Your task to perform on an android device: allow cookies in the chrome app Image 0: 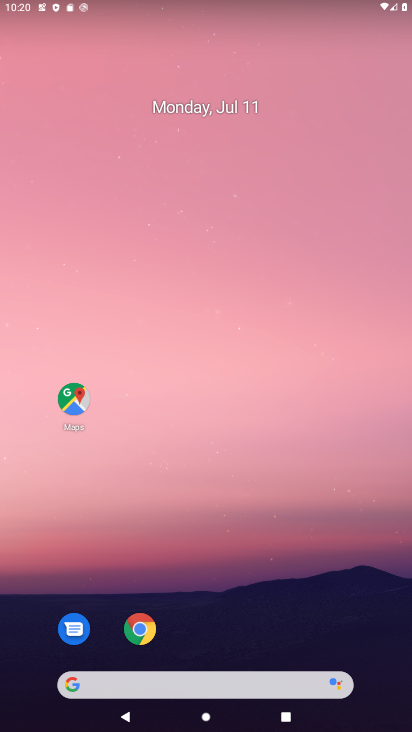
Step 0: click (169, 258)
Your task to perform on an android device: allow cookies in the chrome app Image 1: 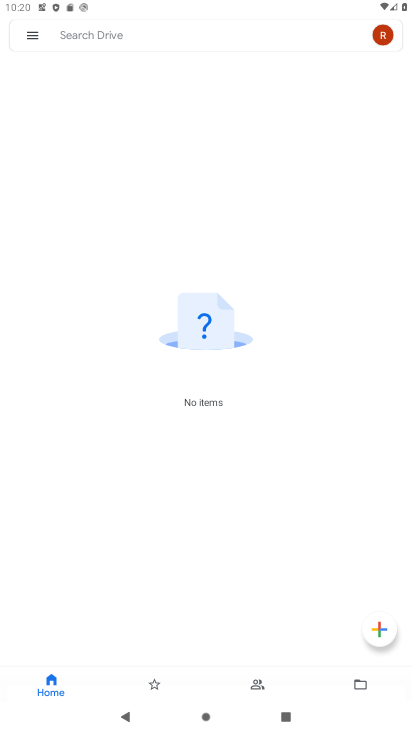
Step 1: press home button
Your task to perform on an android device: allow cookies in the chrome app Image 2: 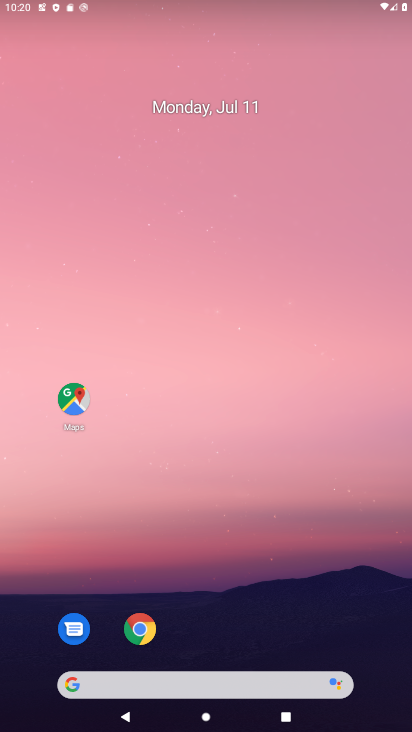
Step 2: click (141, 640)
Your task to perform on an android device: allow cookies in the chrome app Image 3: 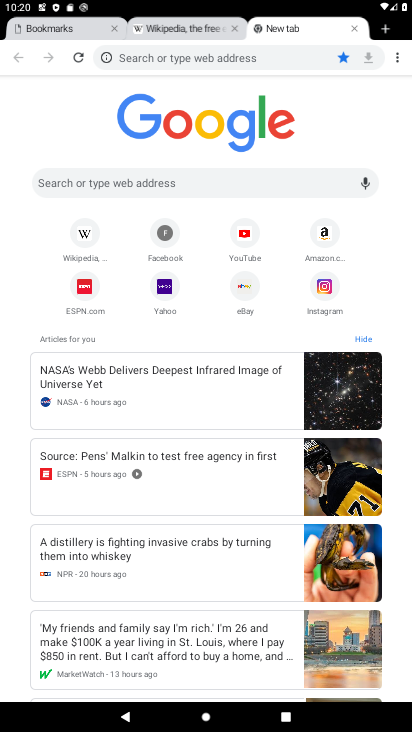
Step 3: click (394, 66)
Your task to perform on an android device: allow cookies in the chrome app Image 4: 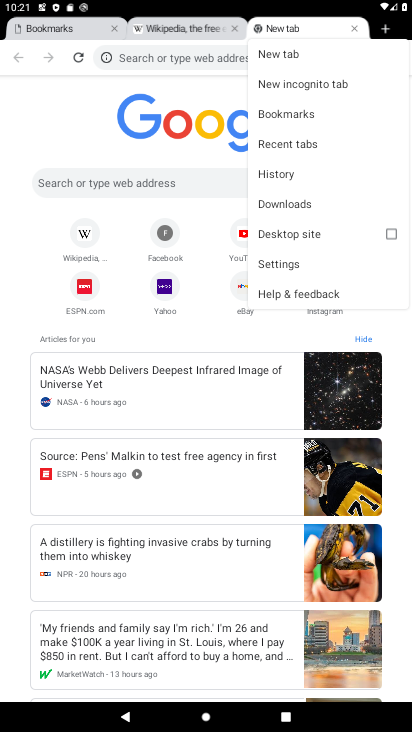
Step 4: click (297, 261)
Your task to perform on an android device: allow cookies in the chrome app Image 5: 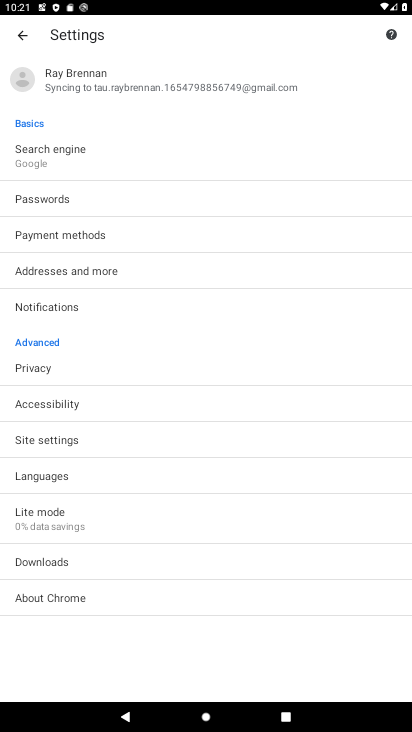
Step 5: click (54, 443)
Your task to perform on an android device: allow cookies in the chrome app Image 6: 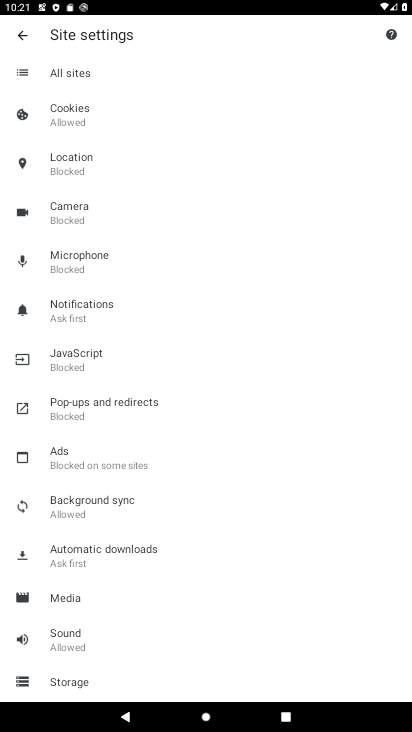
Step 6: click (123, 113)
Your task to perform on an android device: allow cookies in the chrome app Image 7: 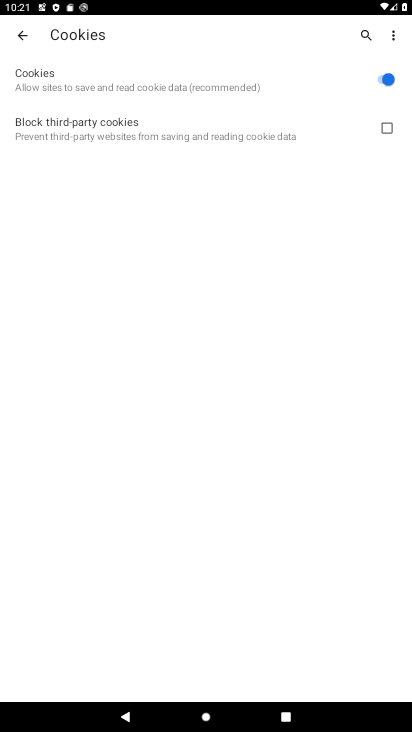
Step 7: task complete